Your task to perform on an android device: open the mobile data screen to see how much data has been used Image 0: 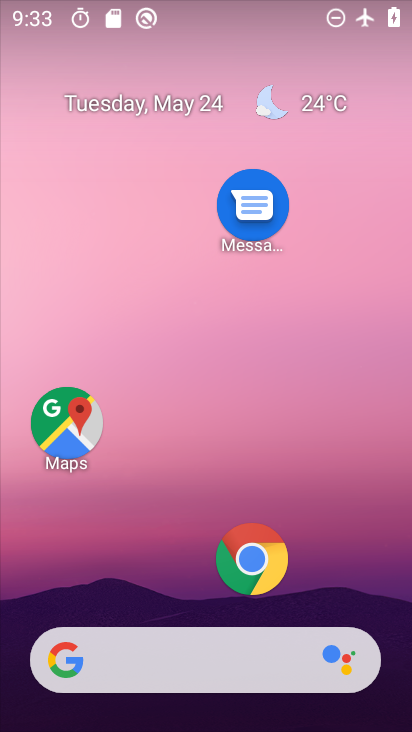
Step 0: drag from (183, 587) to (203, 100)
Your task to perform on an android device: open the mobile data screen to see how much data has been used Image 1: 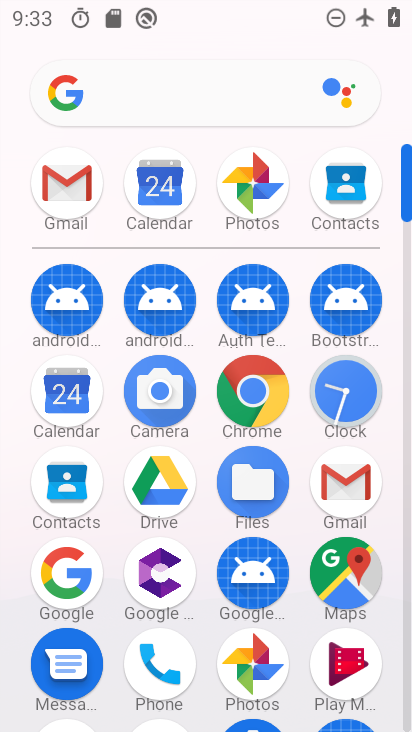
Step 1: drag from (121, 664) to (196, 233)
Your task to perform on an android device: open the mobile data screen to see how much data has been used Image 2: 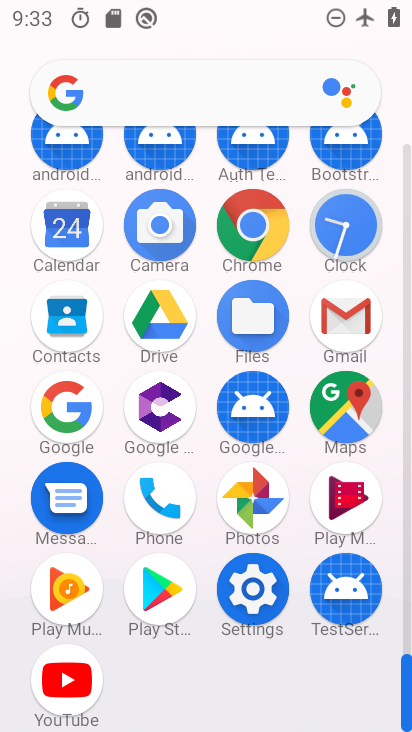
Step 2: click (261, 565)
Your task to perform on an android device: open the mobile data screen to see how much data has been used Image 3: 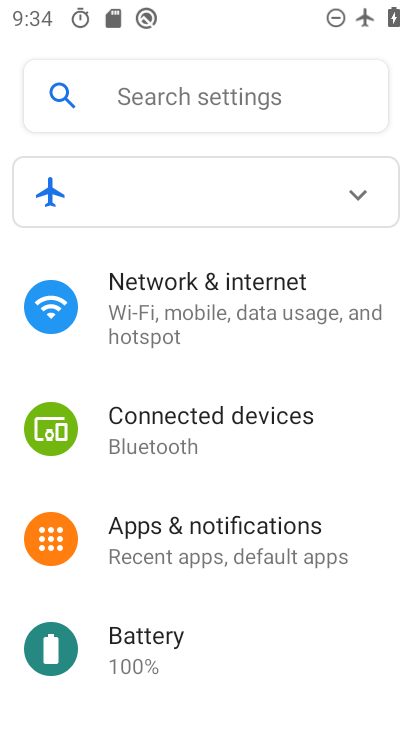
Step 3: click (277, 319)
Your task to perform on an android device: open the mobile data screen to see how much data has been used Image 4: 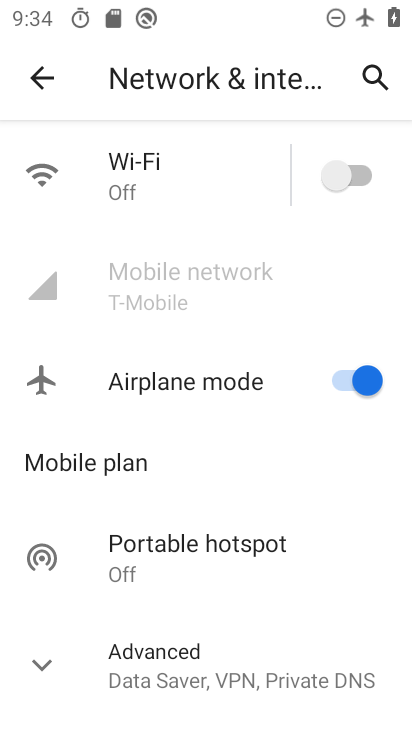
Step 4: click (224, 303)
Your task to perform on an android device: open the mobile data screen to see how much data has been used Image 5: 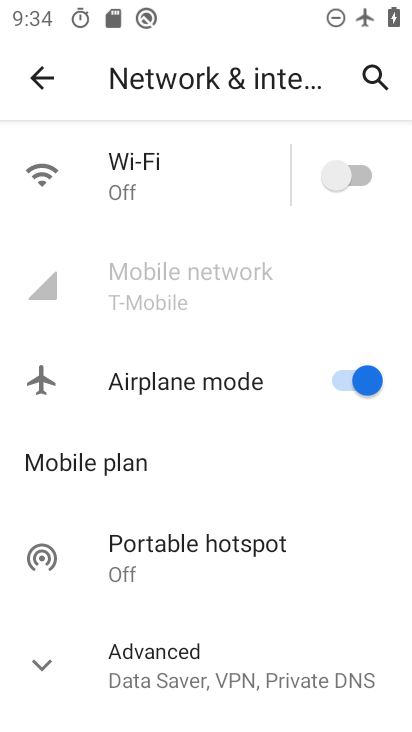
Step 5: click (128, 291)
Your task to perform on an android device: open the mobile data screen to see how much data has been used Image 6: 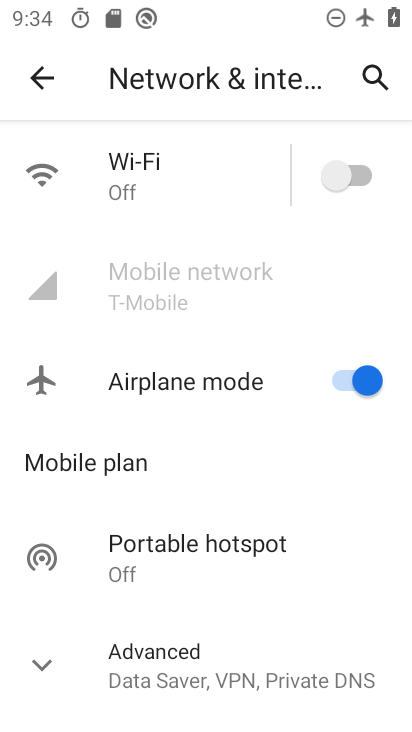
Step 6: click (213, 280)
Your task to perform on an android device: open the mobile data screen to see how much data has been used Image 7: 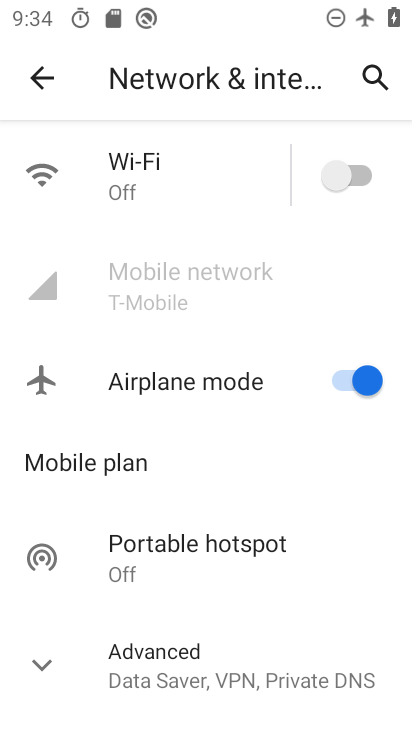
Step 7: task complete